Your task to perform on an android device: change your default location settings in chrome Image 0: 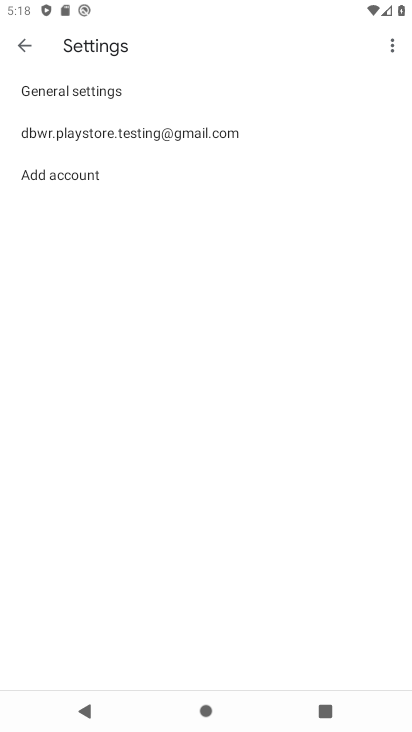
Step 0: press back button
Your task to perform on an android device: change your default location settings in chrome Image 1: 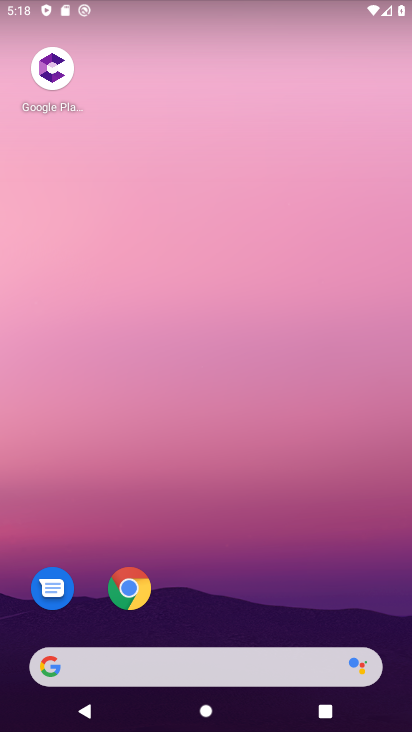
Step 1: click (124, 592)
Your task to perform on an android device: change your default location settings in chrome Image 2: 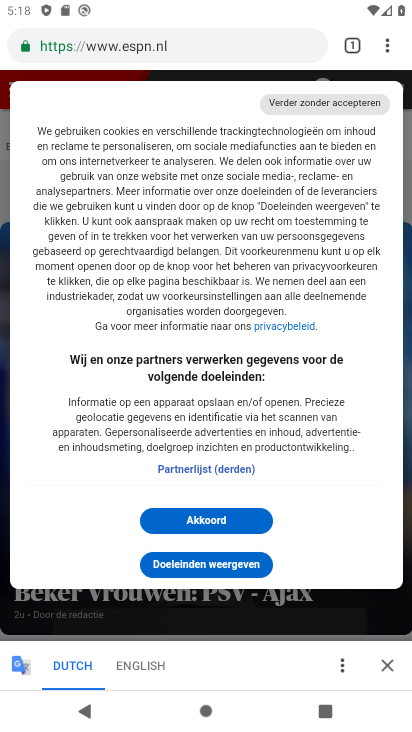
Step 2: click (385, 36)
Your task to perform on an android device: change your default location settings in chrome Image 3: 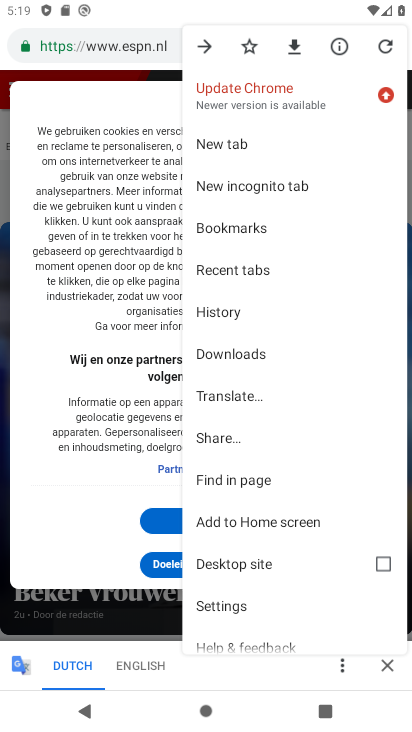
Step 3: click (248, 600)
Your task to perform on an android device: change your default location settings in chrome Image 4: 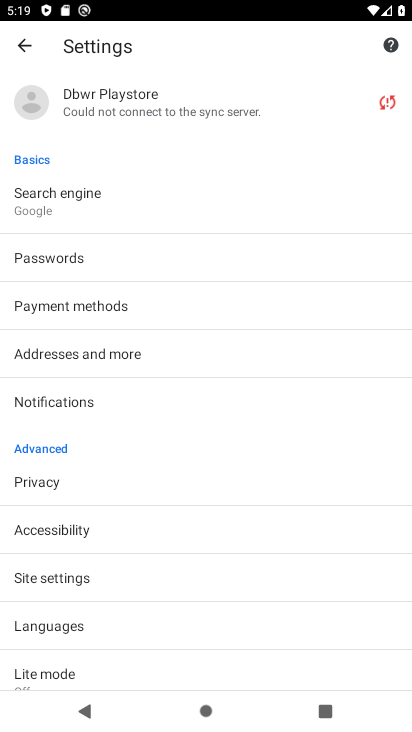
Step 4: click (88, 587)
Your task to perform on an android device: change your default location settings in chrome Image 5: 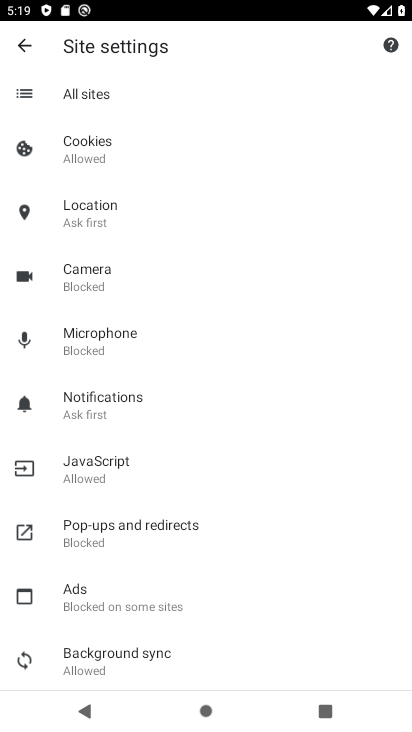
Step 5: click (153, 221)
Your task to perform on an android device: change your default location settings in chrome Image 6: 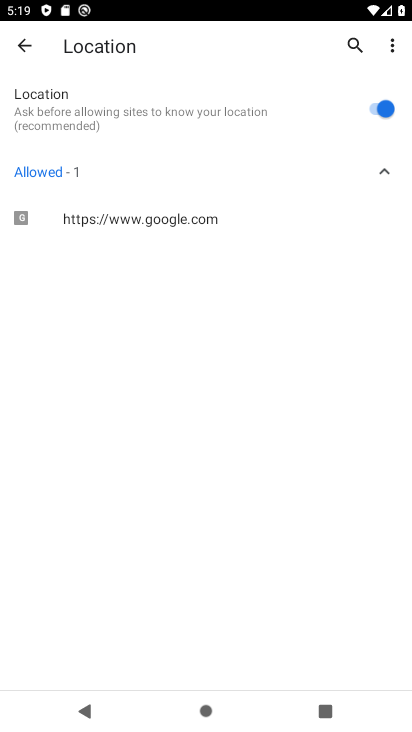
Step 6: click (370, 113)
Your task to perform on an android device: change your default location settings in chrome Image 7: 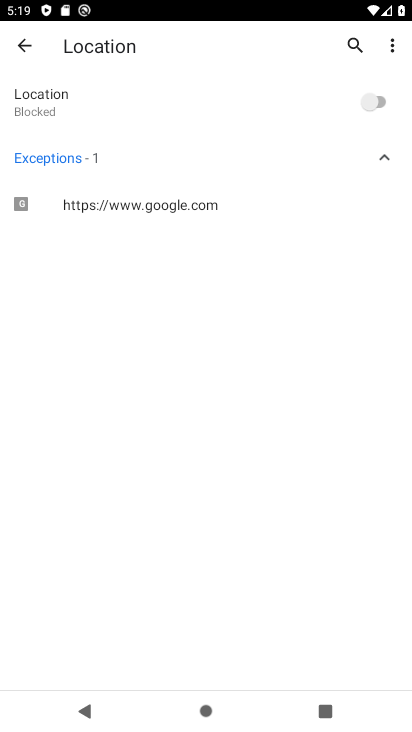
Step 7: task complete